Your task to perform on an android device: toggle pop-ups in chrome Image 0: 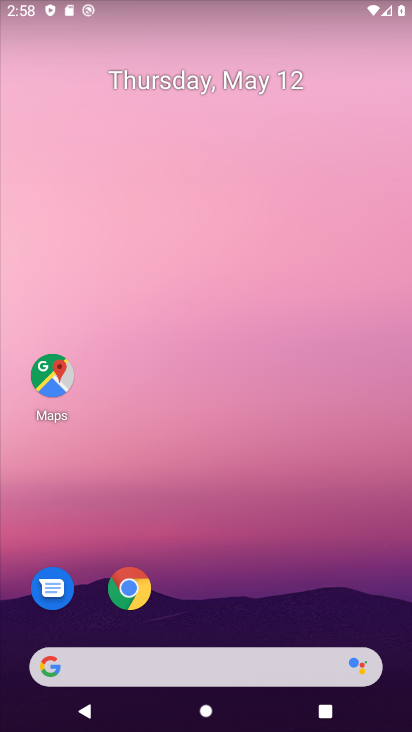
Step 0: drag from (248, 528) to (160, 42)
Your task to perform on an android device: toggle pop-ups in chrome Image 1: 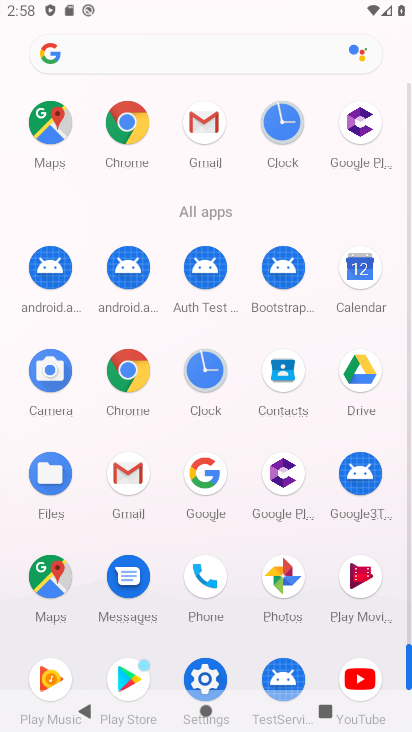
Step 1: click (129, 369)
Your task to perform on an android device: toggle pop-ups in chrome Image 2: 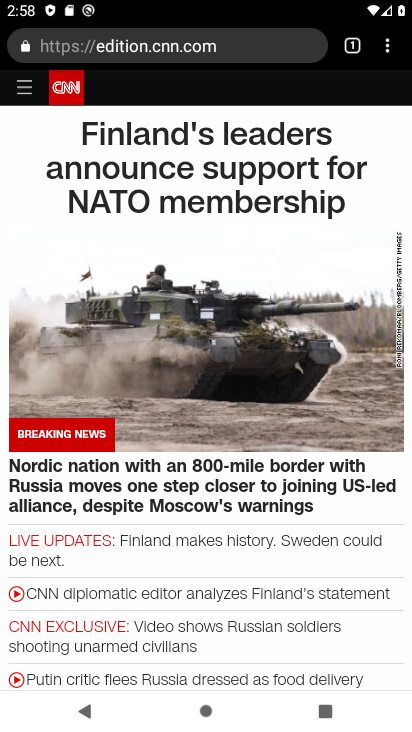
Step 2: drag from (385, 52) to (254, 504)
Your task to perform on an android device: toggle pop-ups in chrome Image 3: 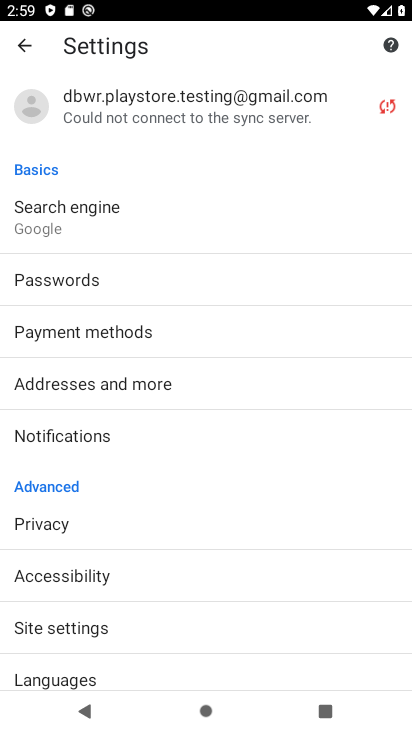
Step 3: drag from (206, 547) to (239, 183)
Your task to perform on an android device: toggle pop-ups in chrome Image 4: 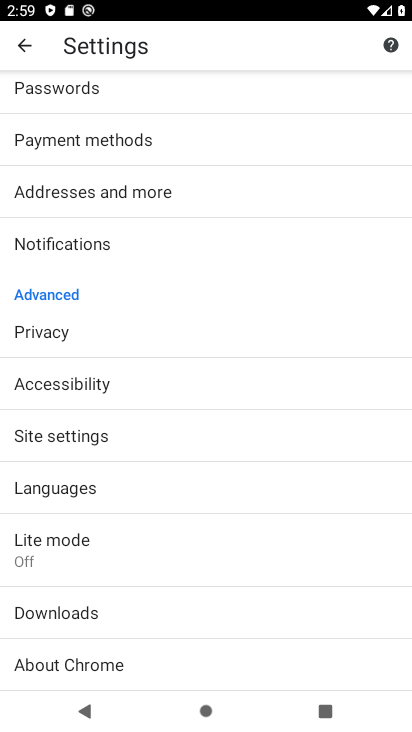
Step 4: click (101, 429)
Your task to perform on an android device: toggle pop-ups in chrome Image 5: 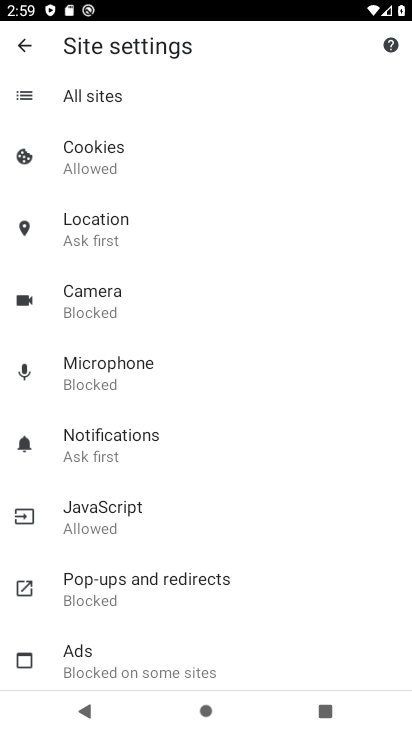
Step 5: drag from (230, 563) to (248, 279)
Your task to perform on an android device: toggle pop-ups in chrome Image 6: 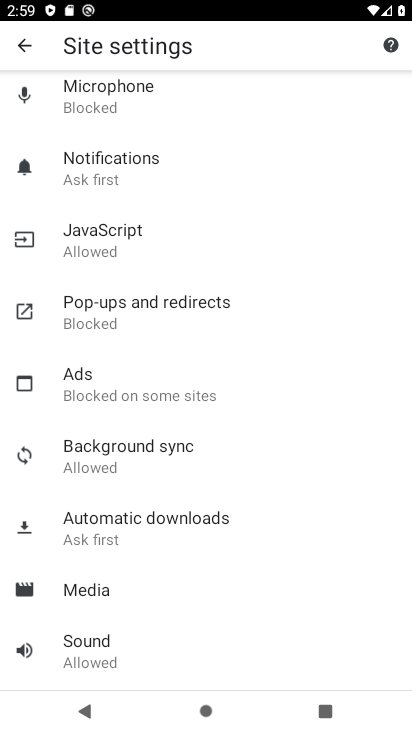
Step 6: click (136, 313)
Your task to perform on an android device: toggle pop-ups in chrome Image 7: 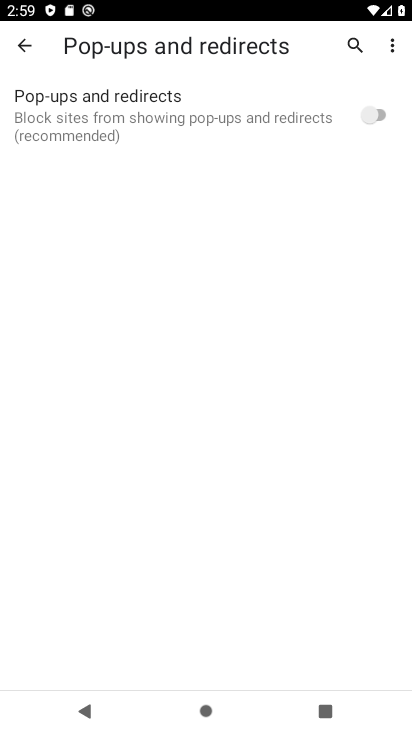
Step 7: click (375, 114)
Your task to perform on an android device: toggle pop-ups in chrome Image 8: 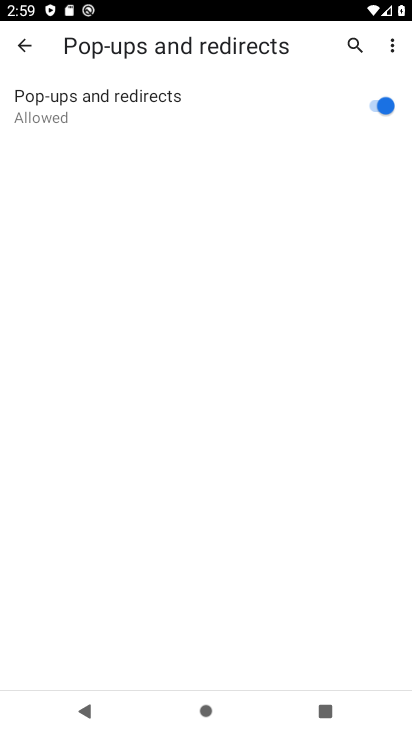
Step 8: task complete